Your task to perform on an android device: turn on sleep mode Image 0: 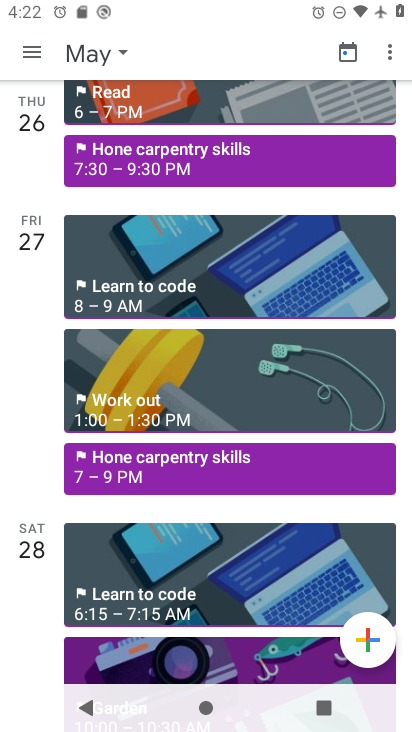
Step 0: press home button
Your task to perform on an android device: turn on sleep mode Image 1: 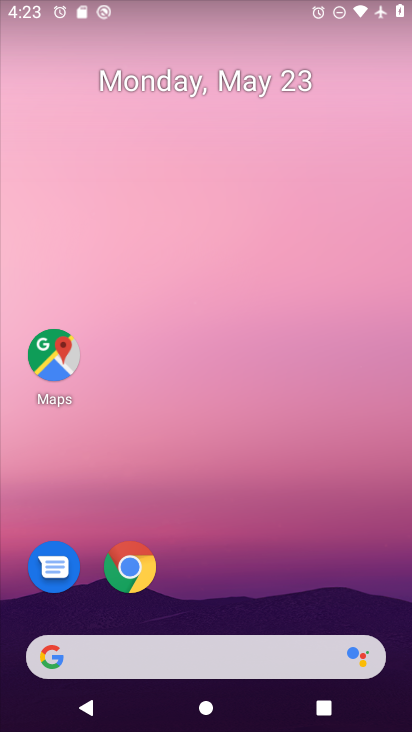
Step 1: drag from (394, 614) to (348, 174)
Your task to perform on an android device: turn on sleep mode Image 2: 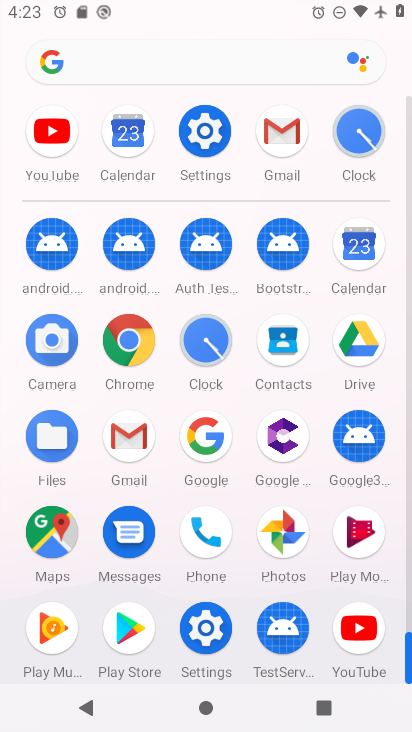
Step 2: click (212, 629)
Your task to perform on an android device: turn on sleep mode Image 3: 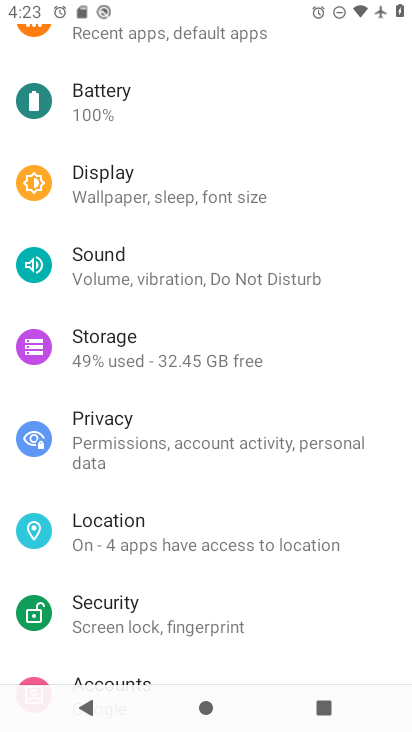
Step 3: click (117, 177)
Your task to perform on an android device: turn on sleep mode Image 4: 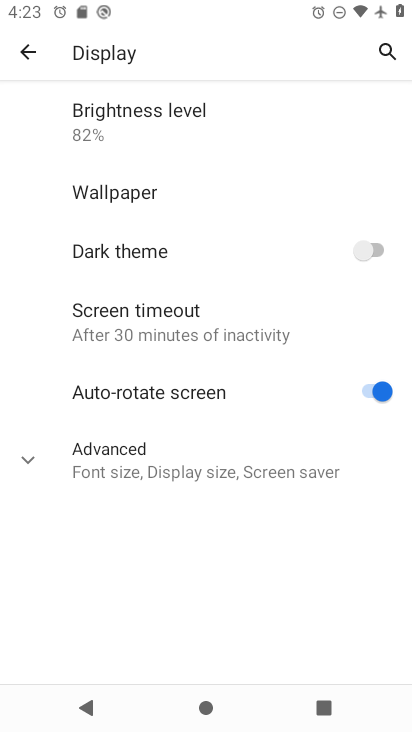
Step 4: click (22, 459)
Your task to perform on an android device: turn on sleep mode Image 5: 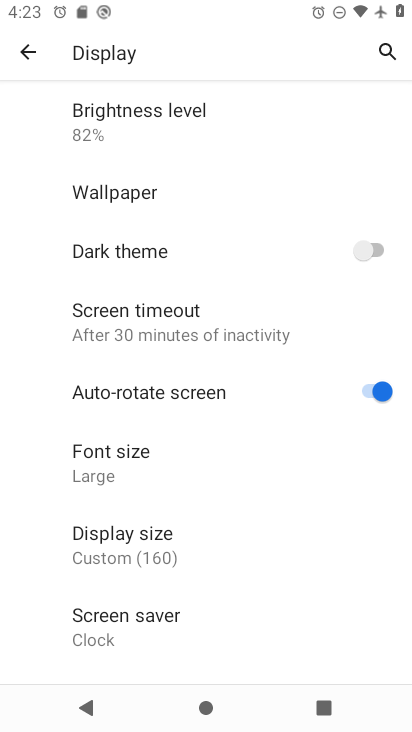
Step 5: task complete